Your task to perform on an android device: Go to network settings Image 0: 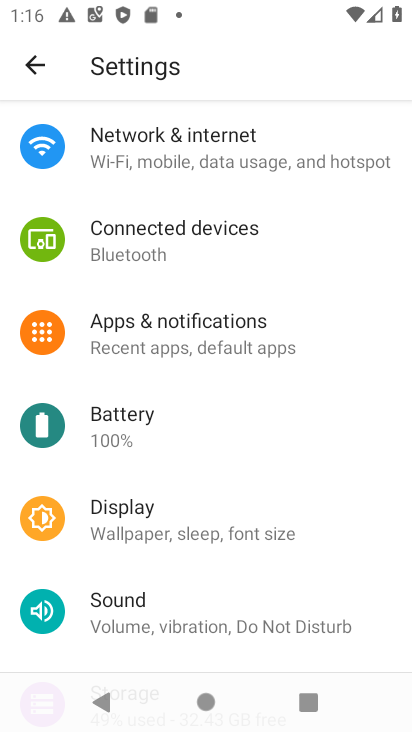
Step 0: press home button
Your task to perform on an android device: Go to network settings Image 1: 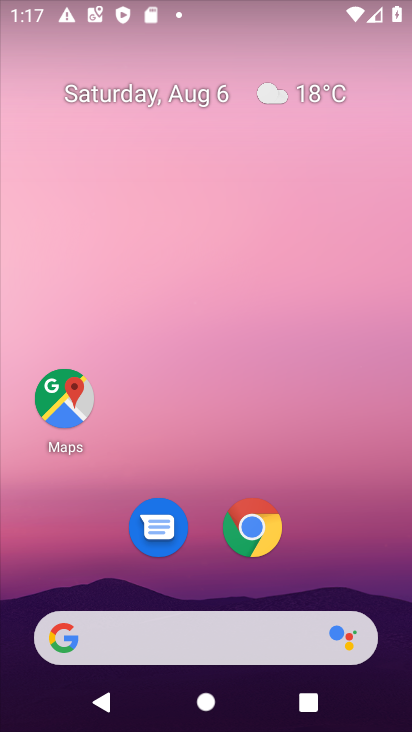
Step 1: drag from (199, 553) to (245, 192)
Your task to perform on an android device: Go to network settings Image 2: 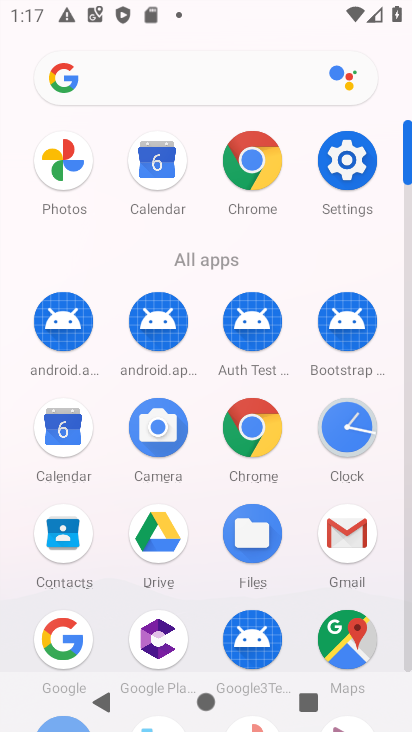
Step 2: click (345, 201)
Your task to perform on an android device: Go to network settings Image 3: 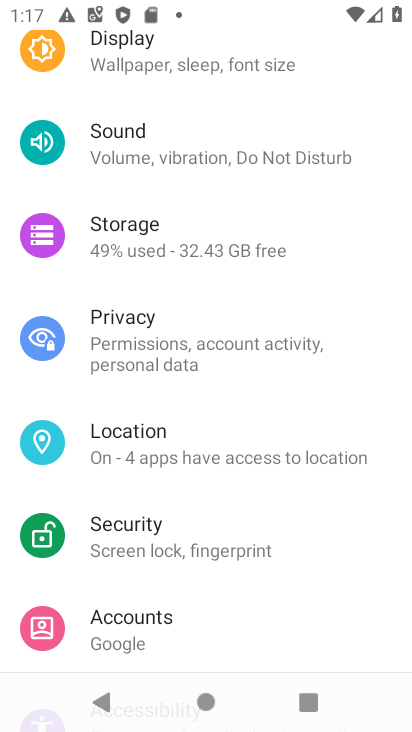
Step 3: drag from (247, 201) to (140, 715)
Your task to perform on an android device: Go to network settings Image 4: 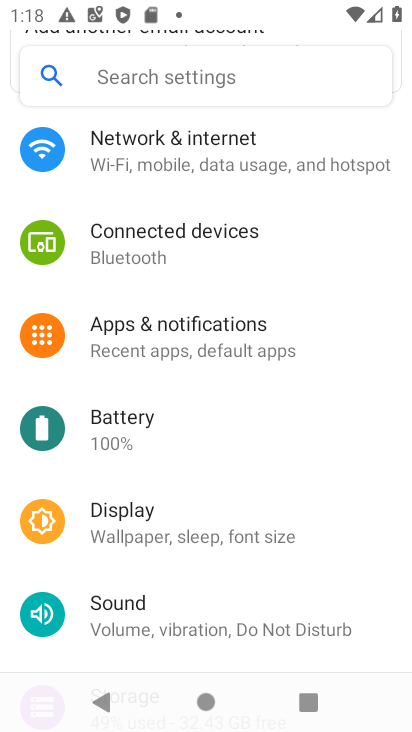
Step 4: click (207, 170)
Your task to perform on an android device: Go to network settings Image 5: 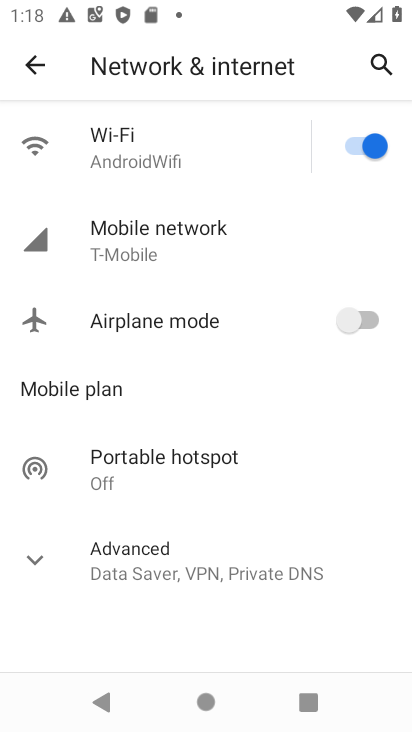
Step 5: click (108, 246)
Your task to perform on an android device: Go to network settings Image 6: 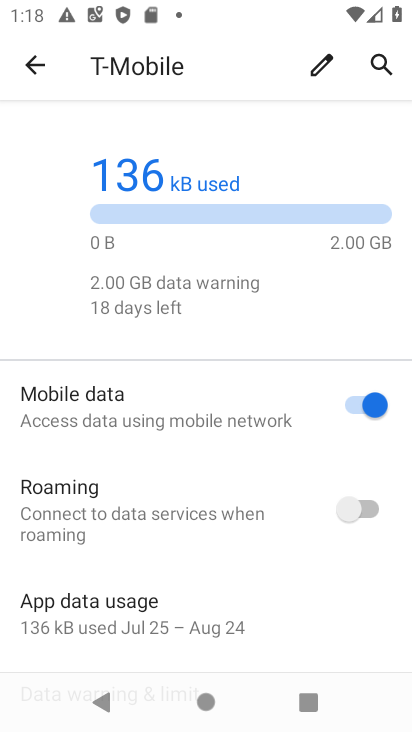
Step 6: task complete